Your task to perform on an android device: turn vacation reply on in the gmail app Image 0: 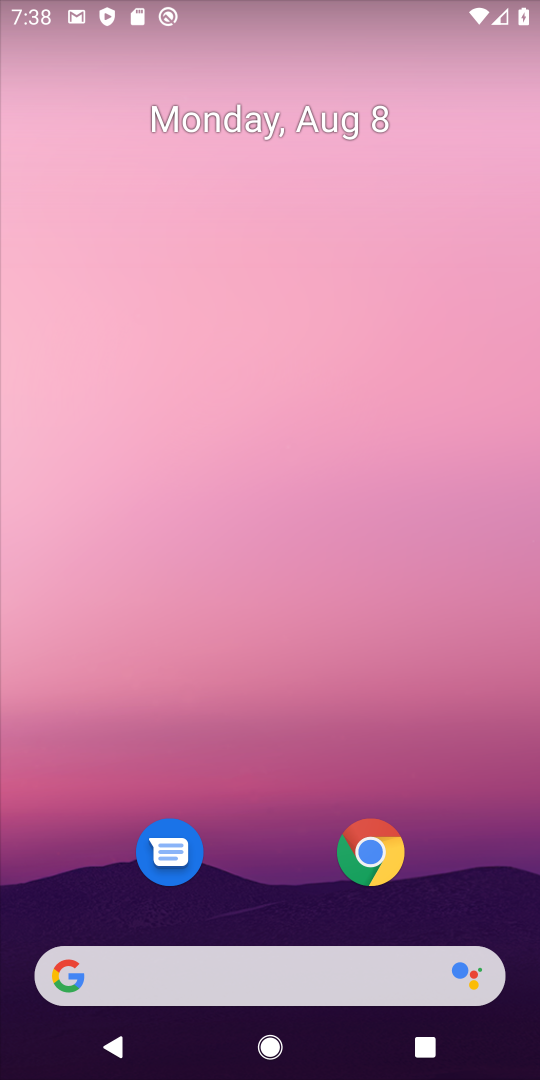
Step 0: drag from (209, 866) to (298, 251)
Your task to perform on an android device: turn vacation reply on in the gmail app Image 1: 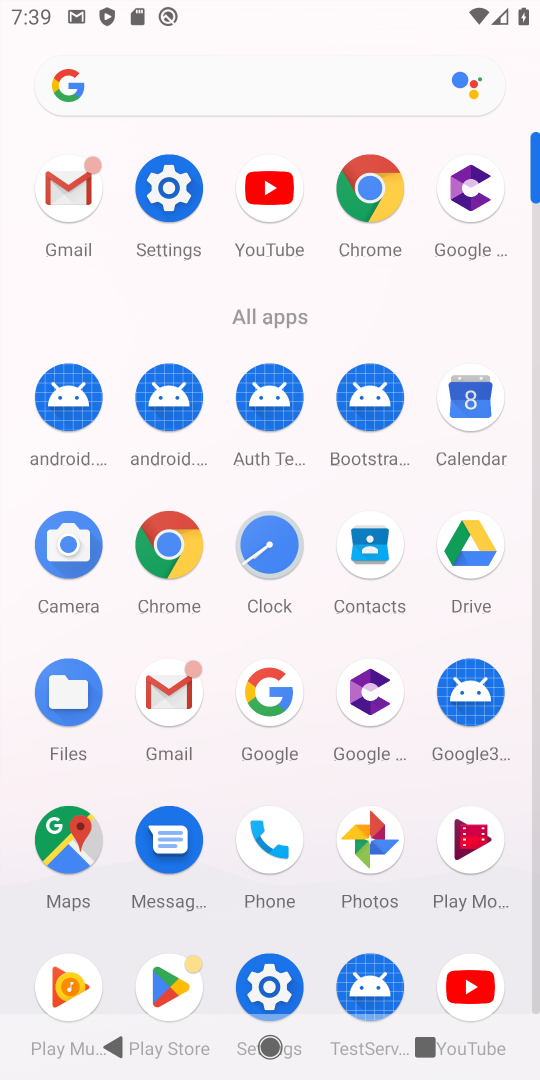
Step 1: click (149, 698)
Your task to perform on an android device: turn vacation reply on in the gmail app Image 2: 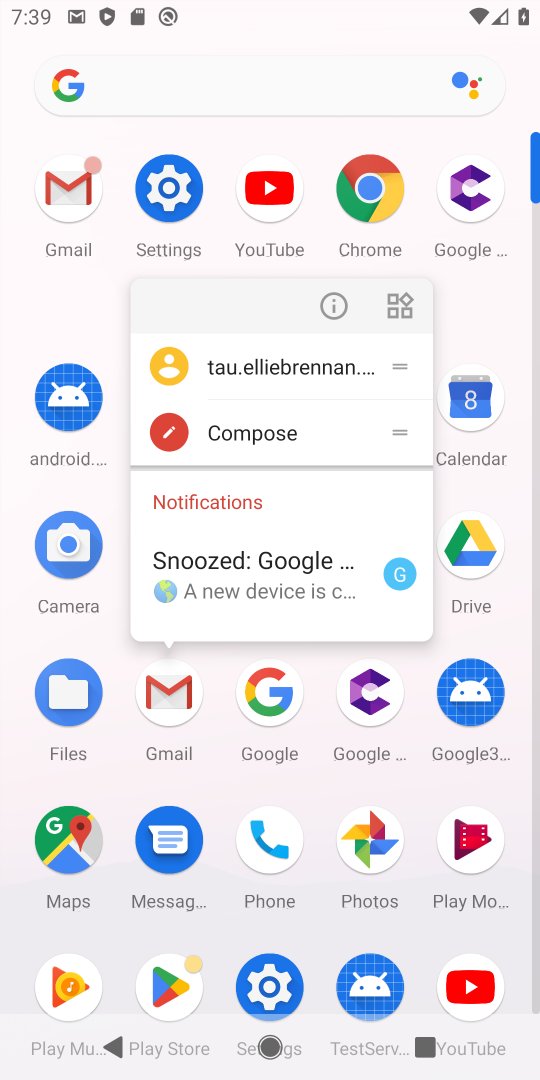
Step 2: click (146, 698)
Your task to perform on an android device: turn vacation reply on in the gmail app Image 3: 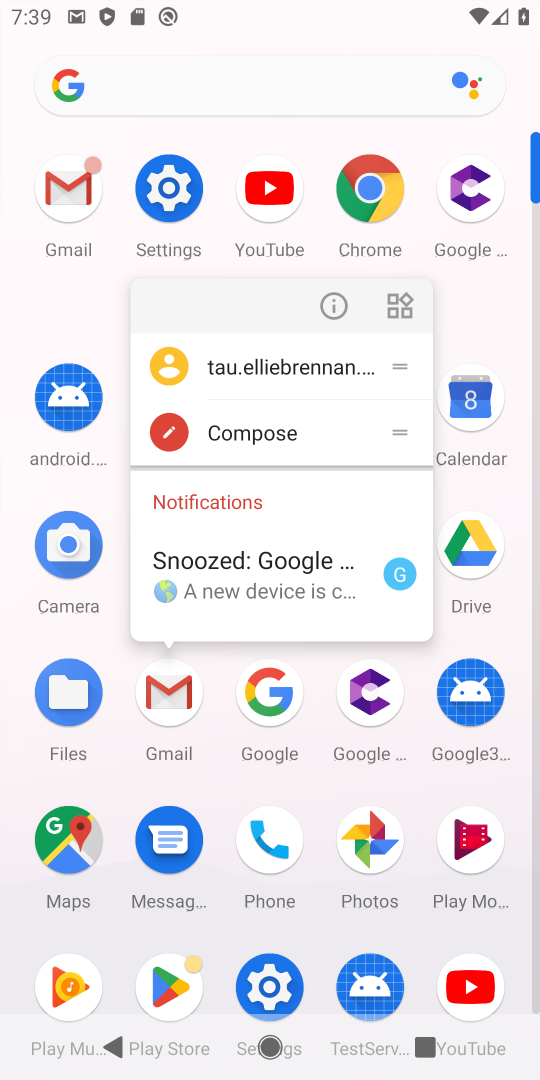
Step 3: click (80, 197)
Your task to perform on an android device: turn vacation reply on in the gmail app Image 4: 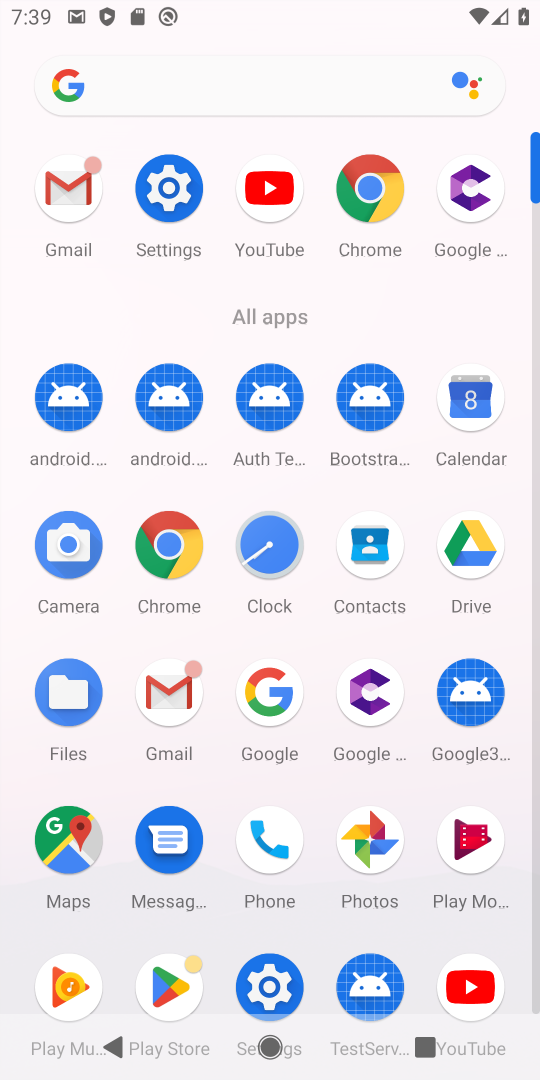
Step 4: click (80, 197)
Your task to perform on an android device: turn vacation reply on in the gmail app Image 5: 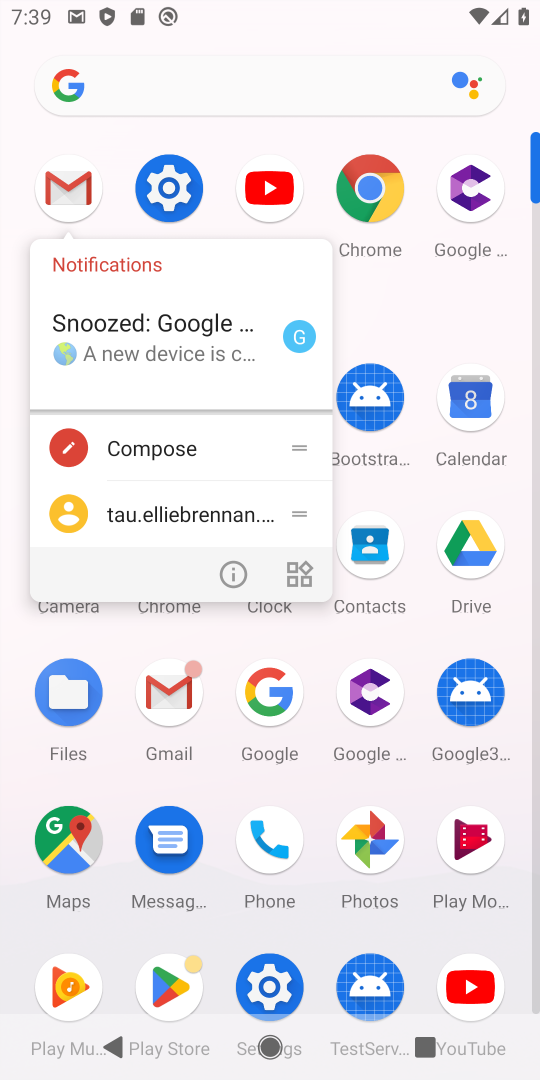
Step 5: click (70, 201)
Your task to perform on an android device: turn vacation reply on in the gmail app Image 6: 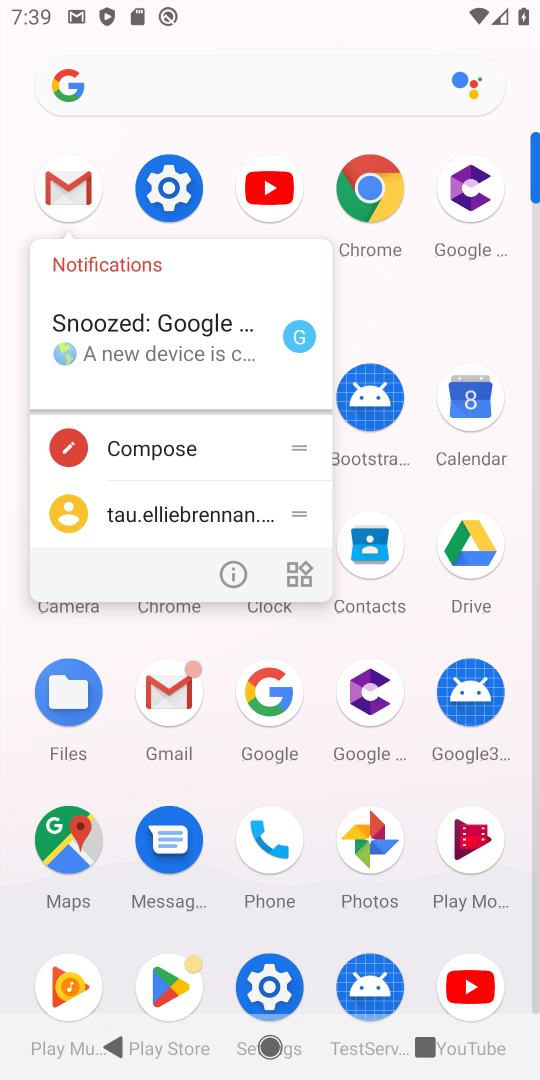
Step 6: click (45, 204)
Your task to perform on an android device: turn vacation reply on in the gmail app Image 7: 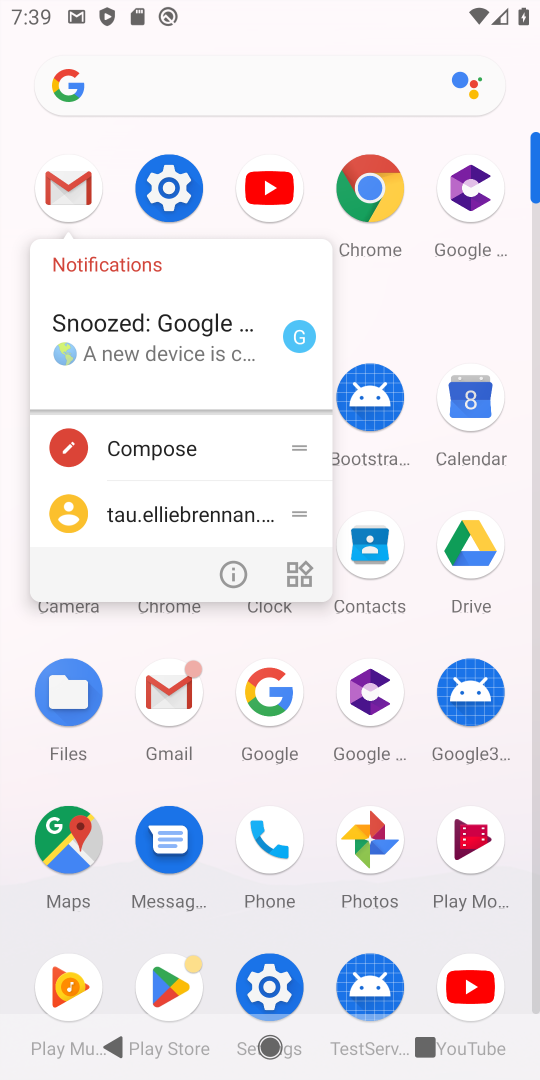
Step 7: click (65, 213)
Your task to perform on an android device: turn vacation reply on in the gmail app Image 8: 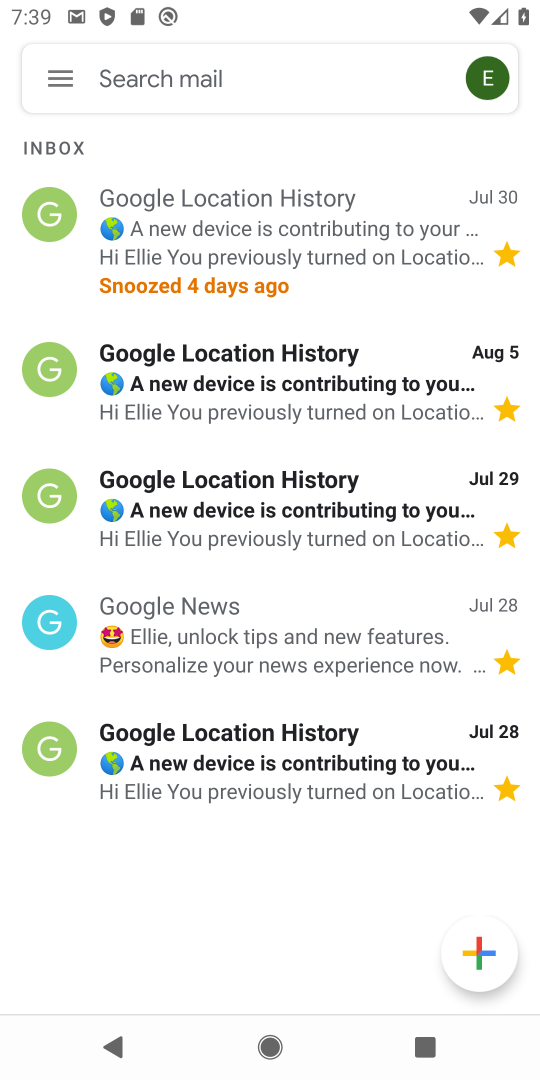
Step 8: click (56, 73)
Your task to perform on an android device: turn vacation reply on in the gmail app Image 9: 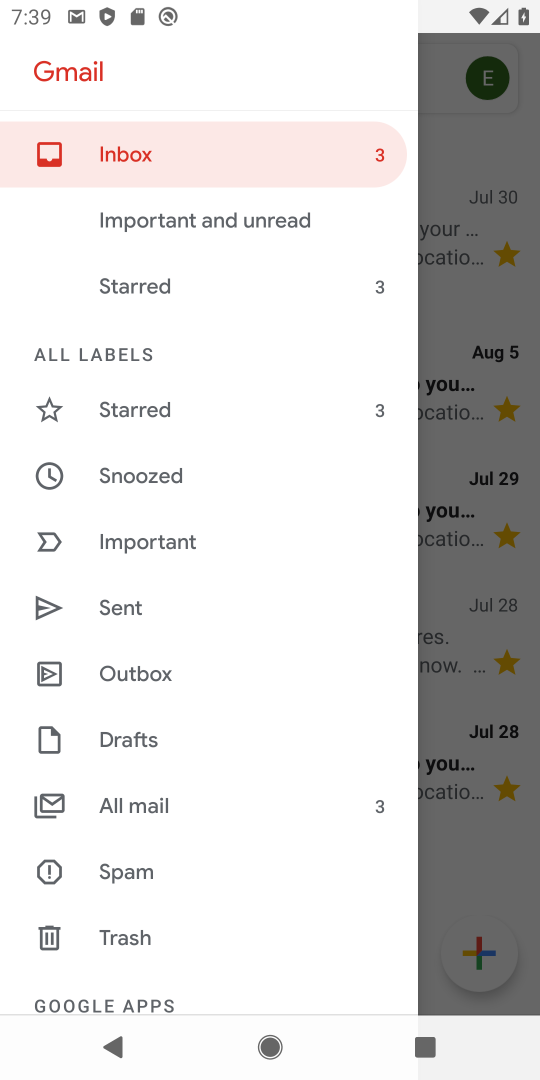
Step 9: drag from (149, 968) to (128, 352)
Your task to perform on an android device: turn vacation reply on in the gmail app Image 10: 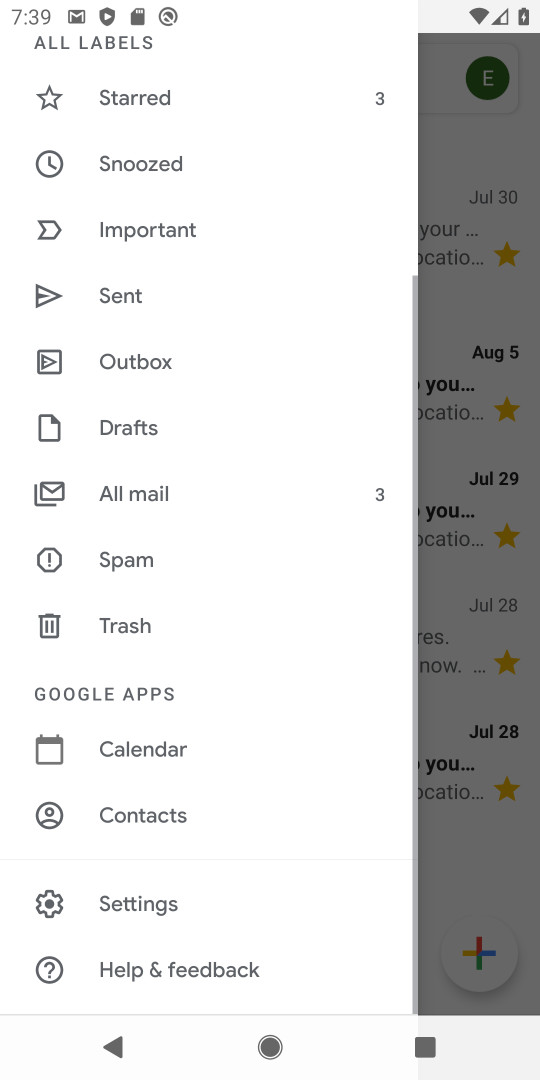
Step 10: click (100, 915)
Your task to perform on an android device: turn vacation reply on in the gmail app Image 11: 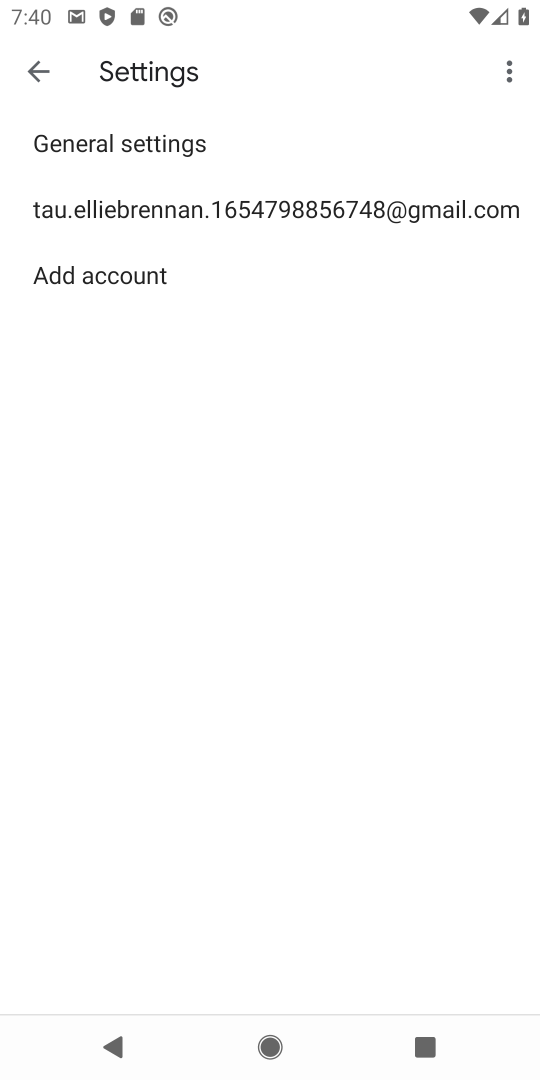
Step 11: click (249, 208)
Your task to perform on an android device: turn vacation reply on in the gmail app Image 12: 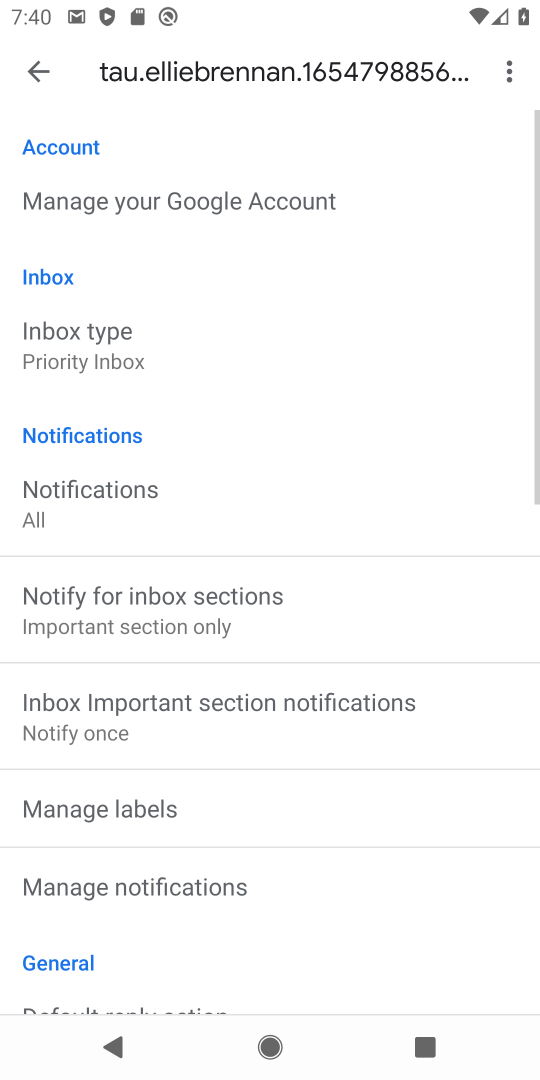
Step 12: drag from (138, 1010) to (231, 388)
Your task to perform on an android device: turn vacation reply on in the gmail app Image 13: 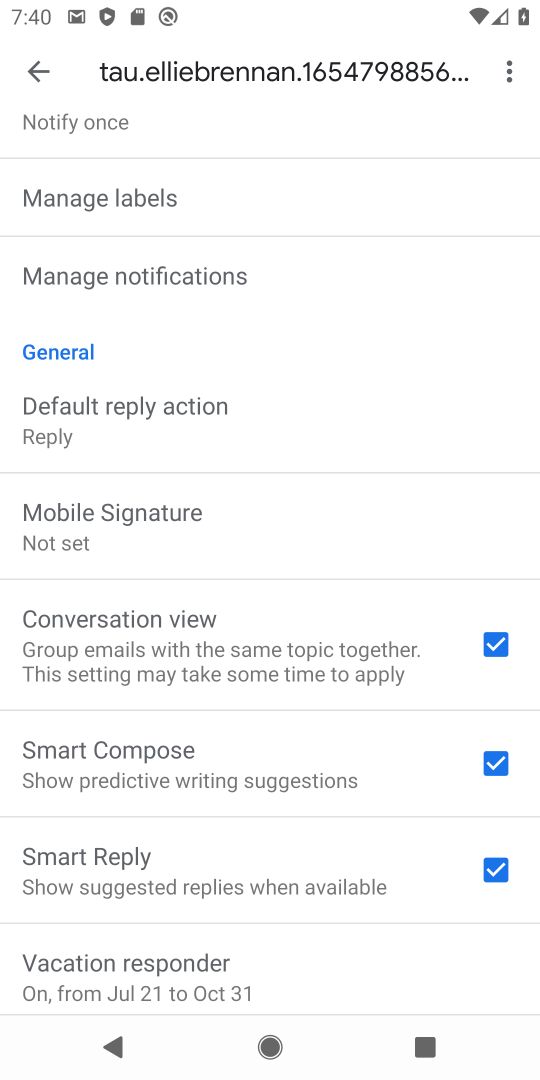
Step 13: click (126, 972)
Your task to perform on an android device: turn vacation reply on in the gmail app Image 14: 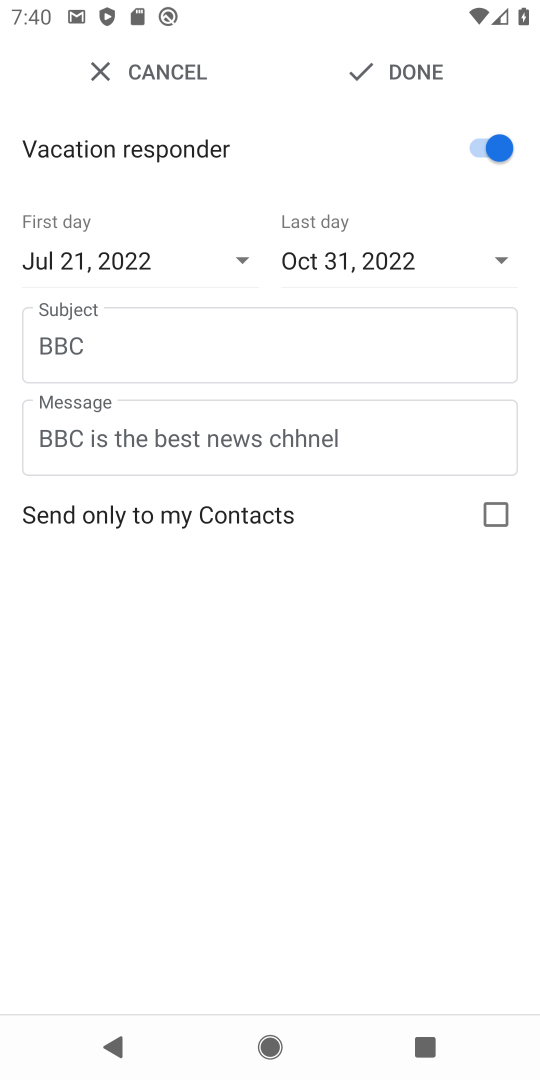
Step 14: click (381, 62)
Your task to perform on an android device: turn vacation reply on in the gmail app Image 15: 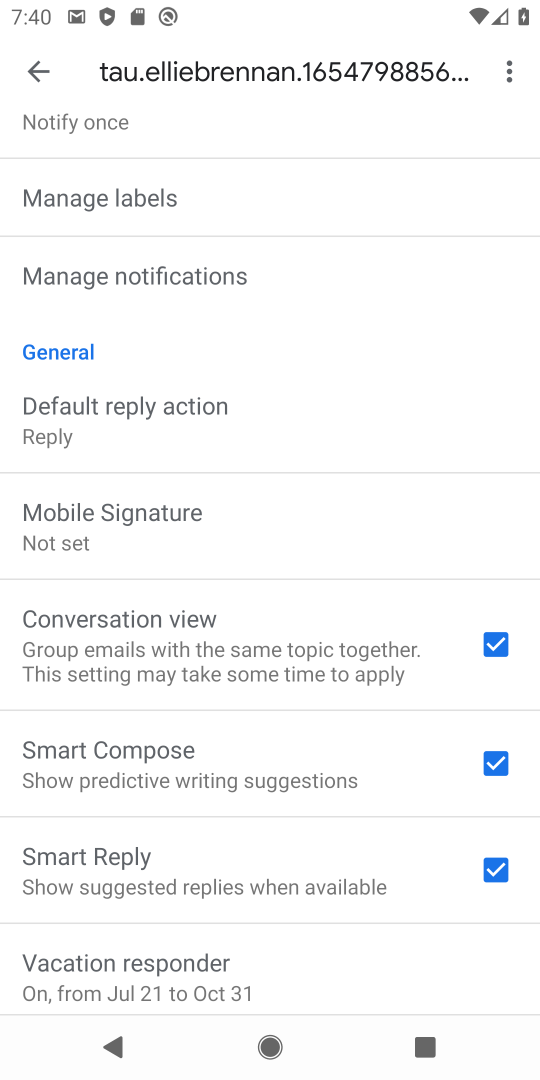
Step 15: task complete